Your task to perform on an android device: check data usage Image 0: 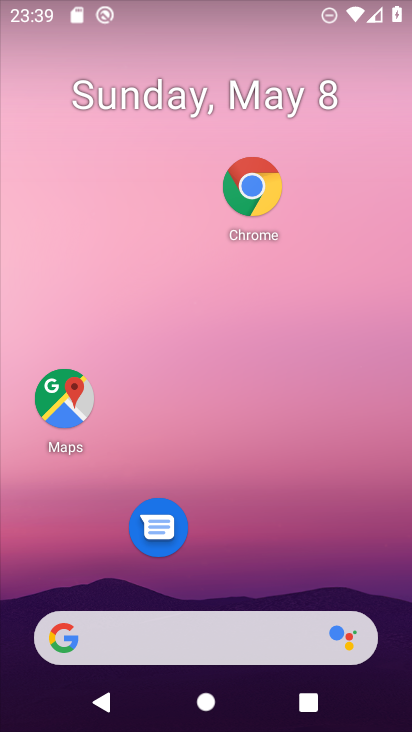
Step 0: drag from (248, 567) to (328, 224)
Your task to perform on an android device: check data usage Image 1: 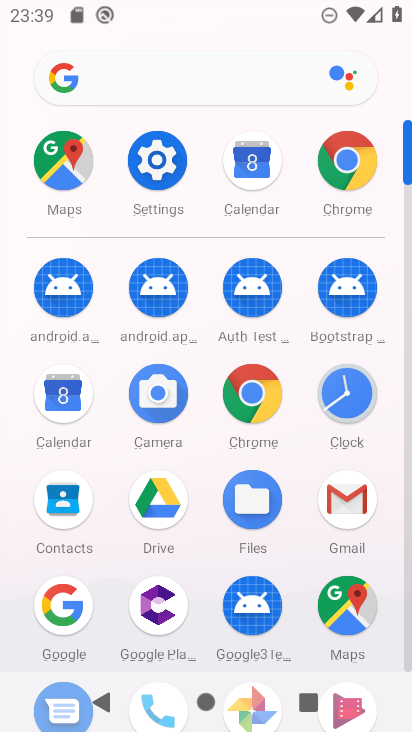
Step 1: click (138, 159)
Your task to perform on an android device: check data usage Image 2: 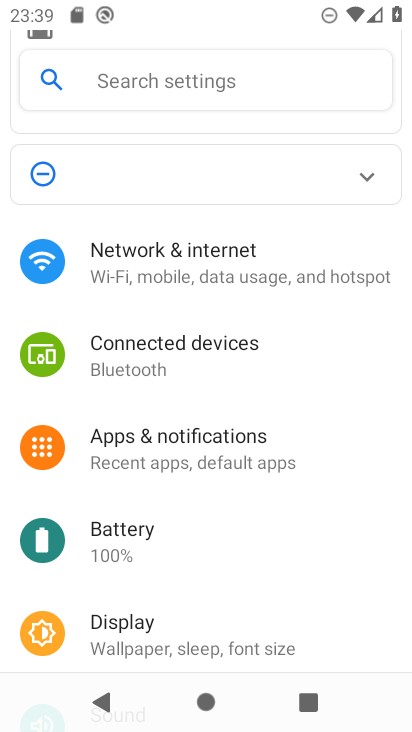
Step 2: drag from (224, 555) to (248, 372)
Your task to perform on an android device: check data usage Image 3: 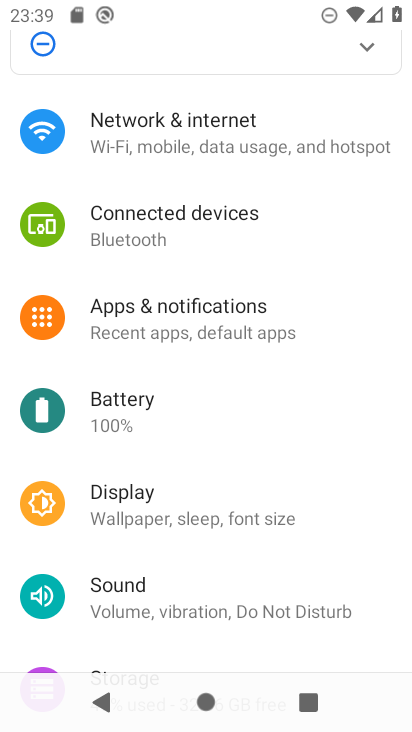
Step 3: click (231, 147)
Your task to perform on an android device: check data usage Image 4: 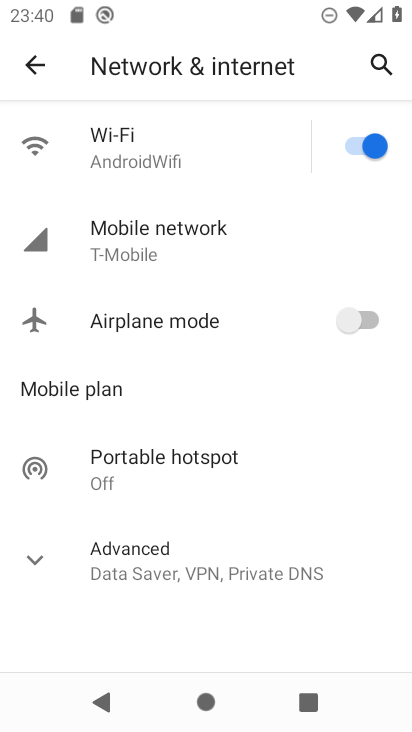
Step 4: click (211, 232)
Your task to perform on an android device: check data usage Image 5: 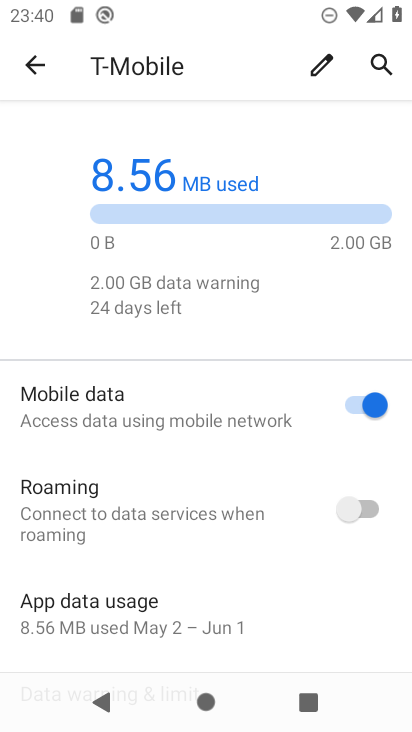
Step 5: task complete